Your task to perform on an android device: Open Android settings Image 0: 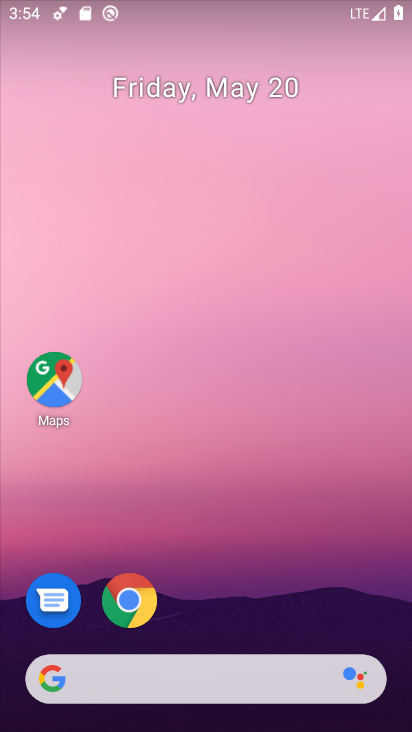
Step 0: drag from (366, 626) to (359, 235)
Your task to perform on an android device: Open Android settings Image 1: 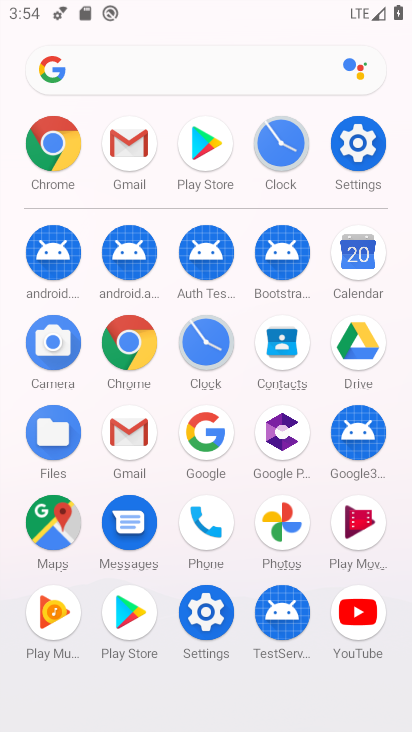
Step 1: click (218, 633)
Your task to perform on an android device: Open Android settings Image 2: 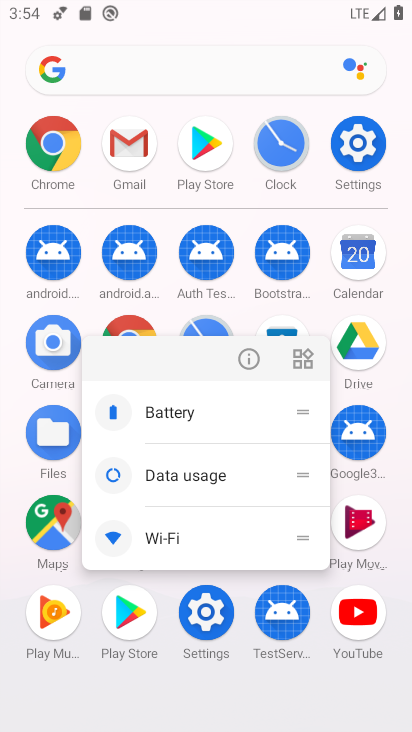
Step 2: click (218, 633)
Your task to perform on an android device: Open Android settings Image 3: 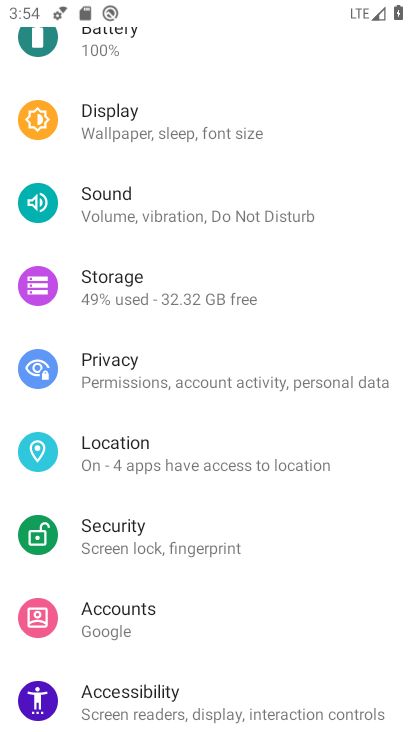
Step 3: drag from (319, 629) to (327, 556)
Your task to perform on an android device: Open Android settings Image 4: 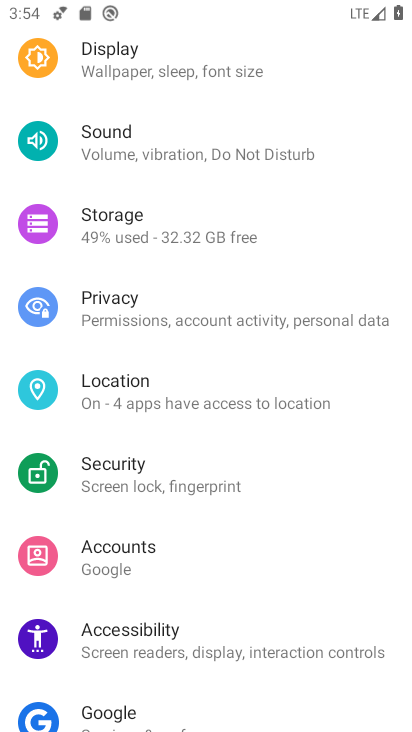
Step 4: drag from (336, 675) to (356, 563)
Your task to perform on an android device: Open Android settings Image 5: 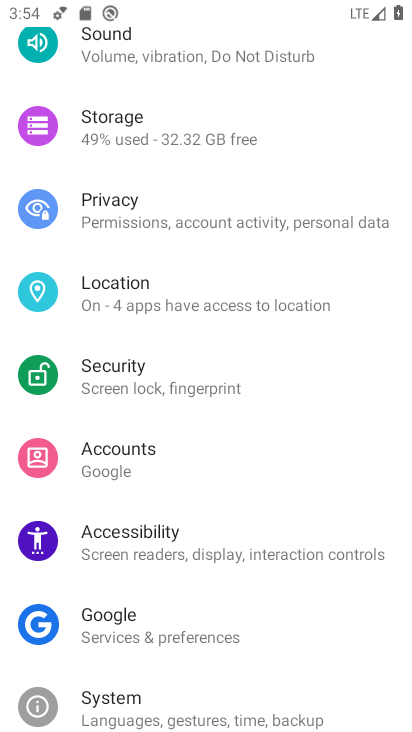
Step 5: drag from (352, 665) to (360, 561)
Your task to perform on an android device: Open Android settings Image 6: 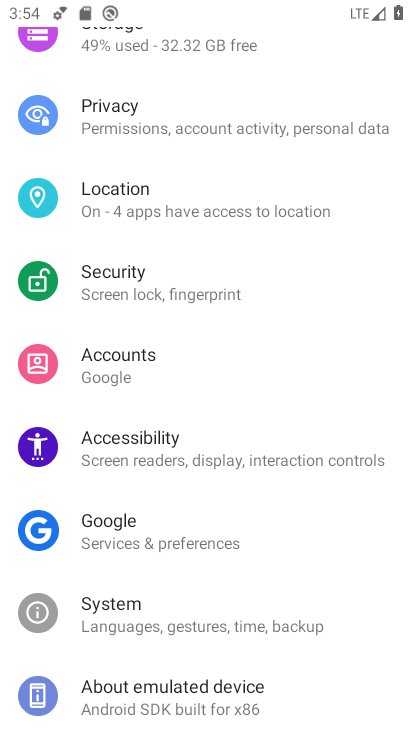
Step 6: drag from (350, 676) to (352, 573)
Your task to perform on an android device: Open Android settings Image 7: 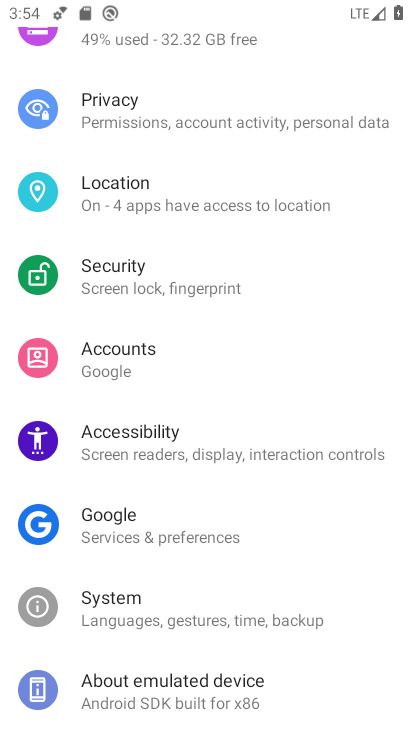
Step 7: click (317, 621)
Your task to perform on an android device: Open Android settings Image 8: 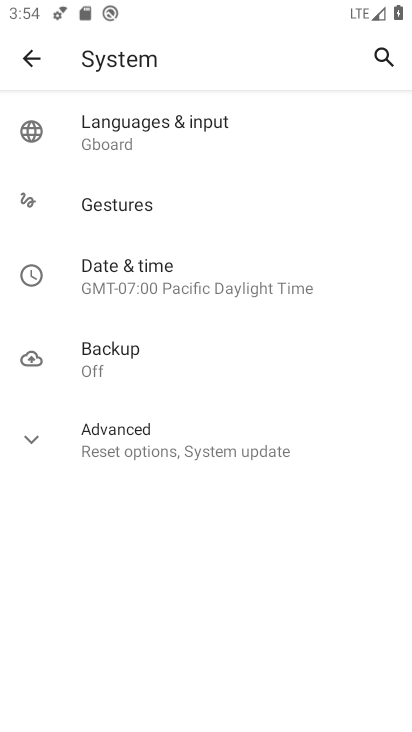
Step 8: click (274, 461)
Your task to perform on an android device: Open Android settings Image 9: 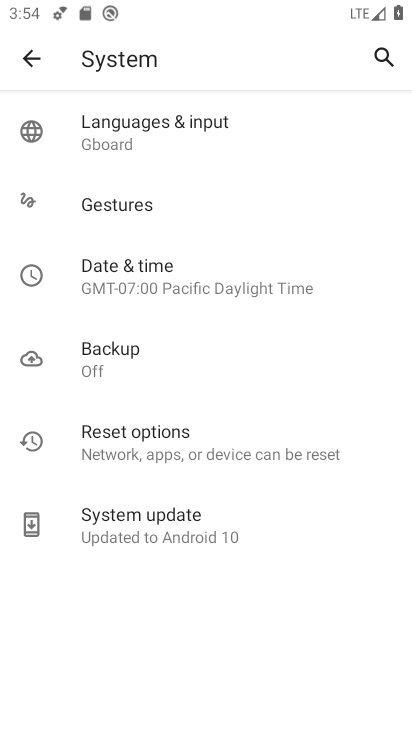
Step 9: task complete